Your task to perform on an android device: Open Google Chrome Image 0: 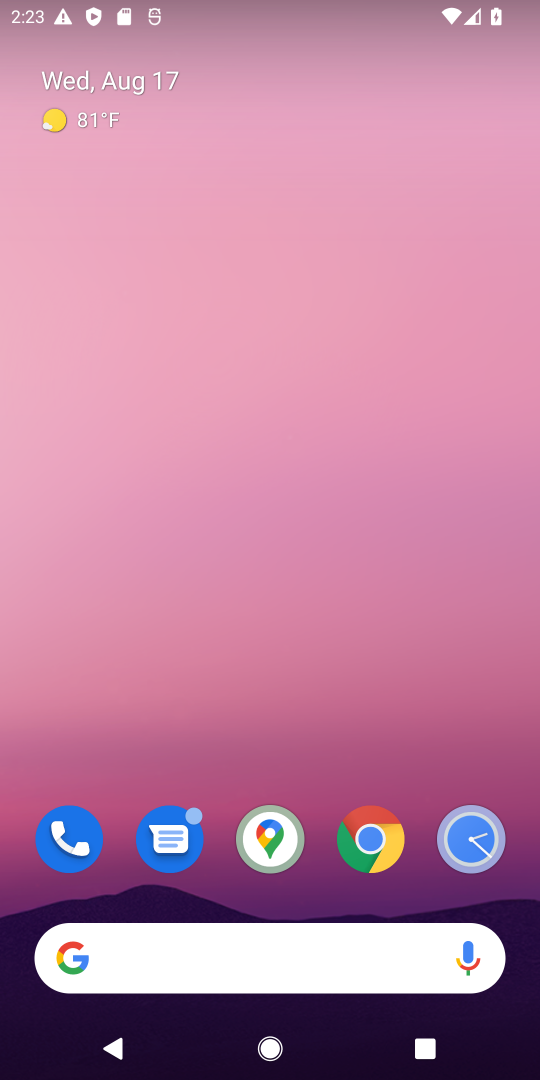
Step 0: drag from (315, 868) to (238, 168)
Your task to perform on an android device: Open Google Chrome Image 1: 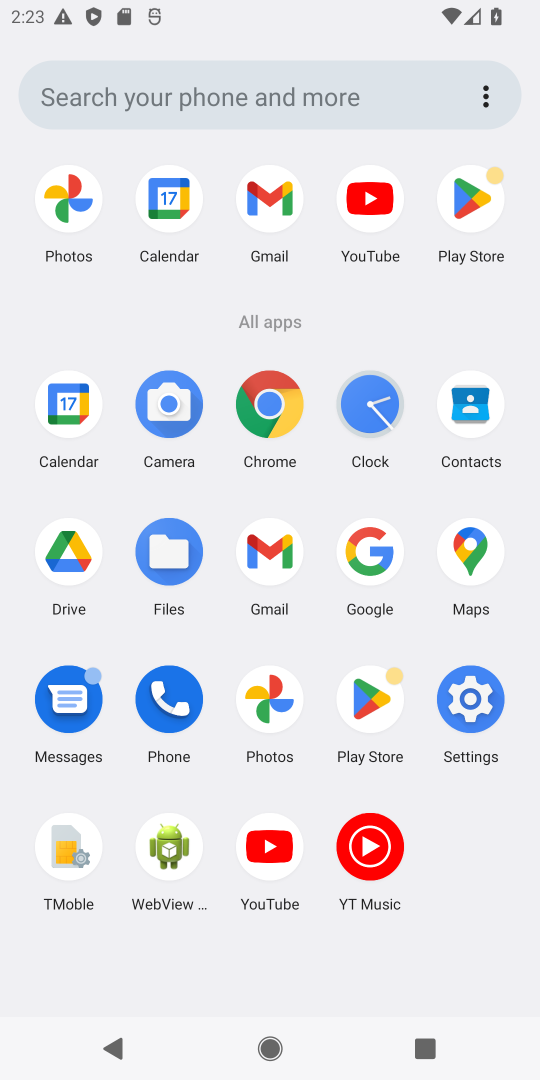
Step 1: click (270, 409)
Your task to perform on an android device: Open Google Chrome Image 2: 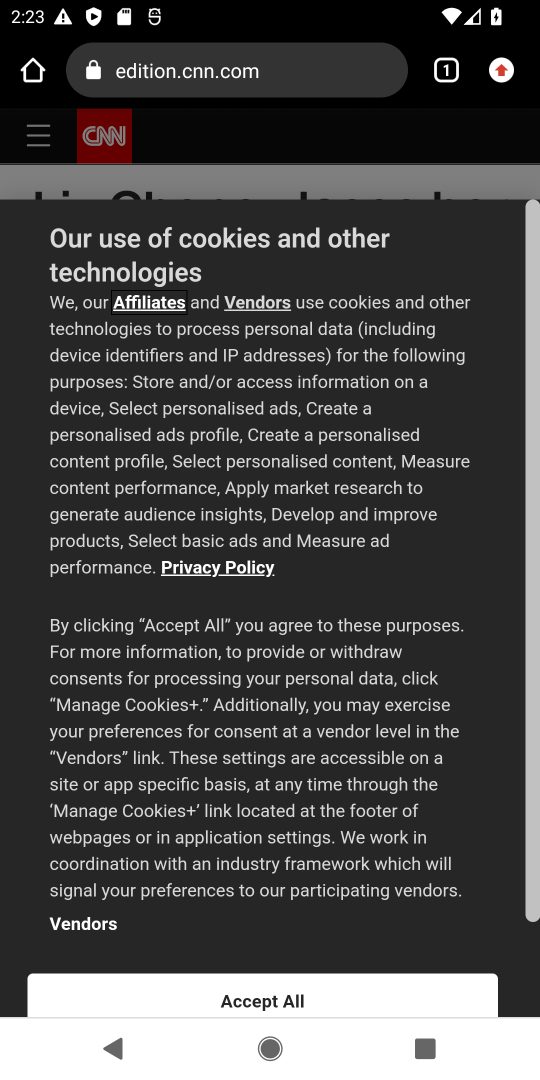
Step 2: task complete